Your task to perform on an android device: Go to sound settings Image 0: 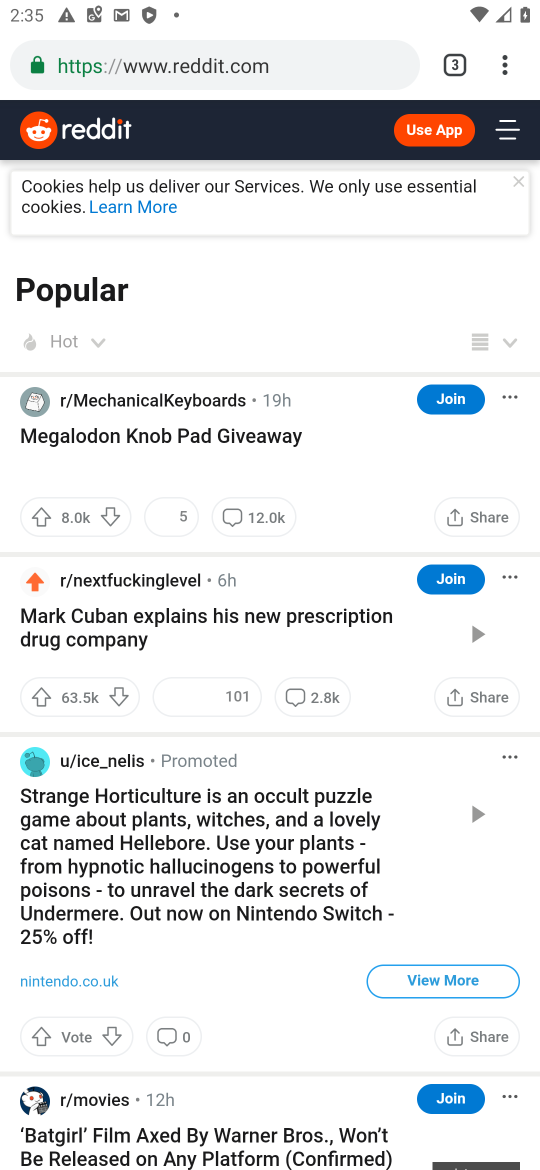
Step 0: press home button
Your task to perform on an android device: Go to sound settings Image 1: 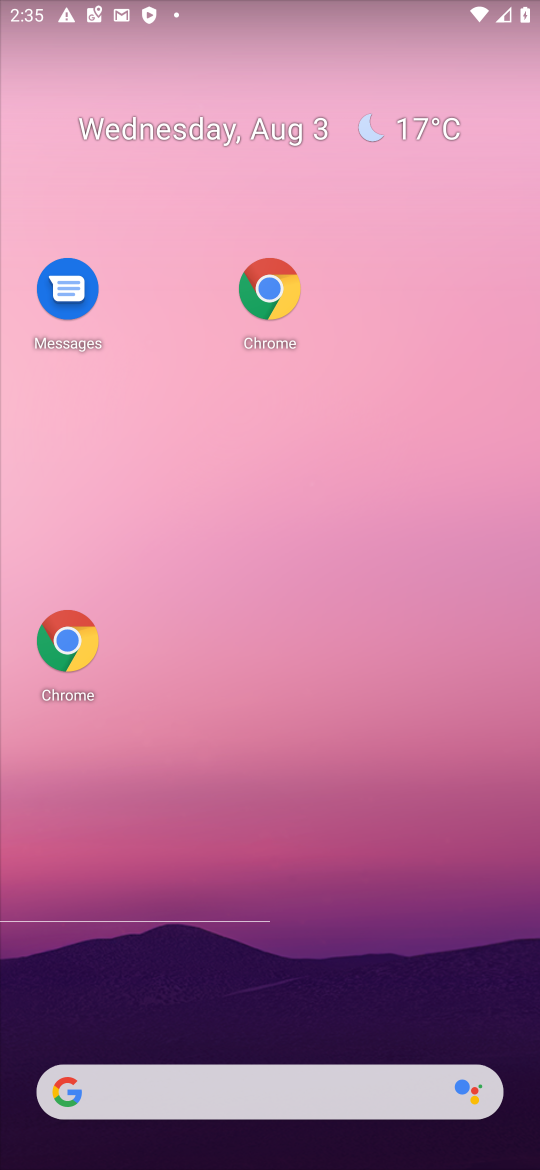
Step 1: click (54, 656)
Your task to perform on an android device: Go to sound settings Image 2: 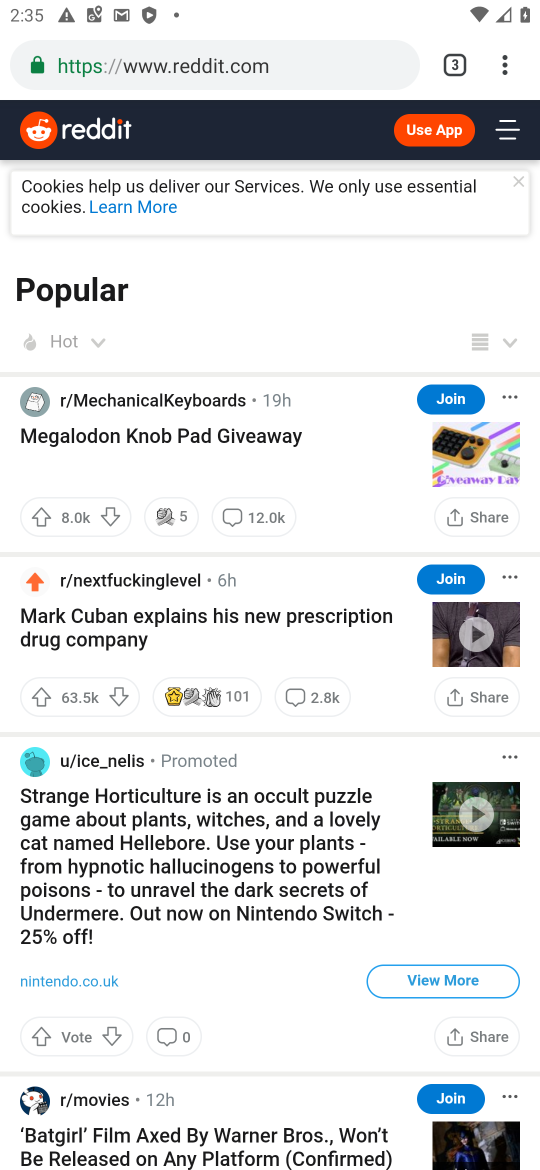
Step 2: click (283, 56)
Your task to perform on an android device: Go to sound settings Image 3: 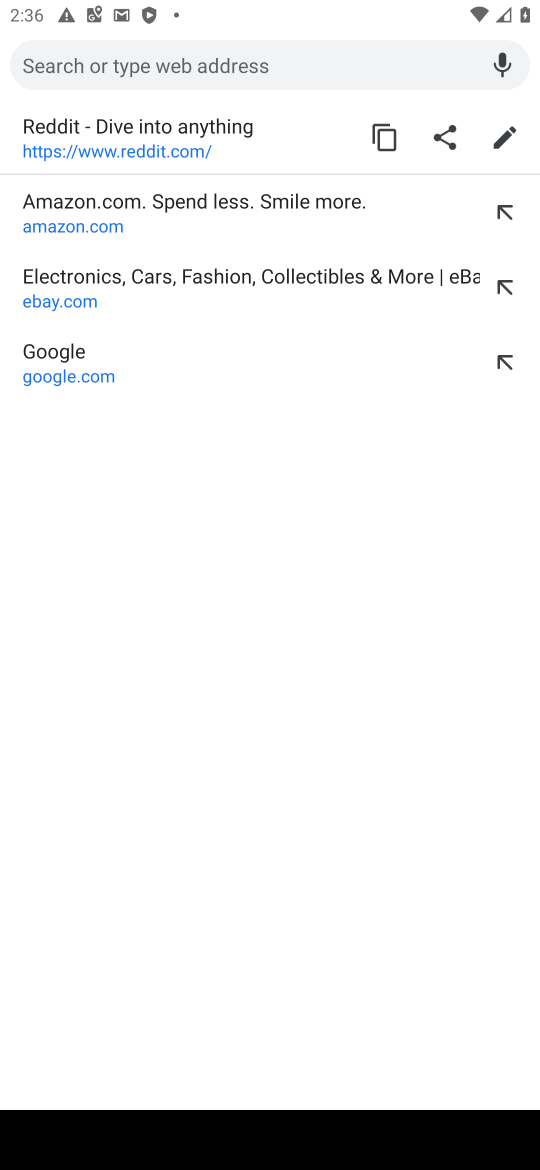
Step 3: press home button
Your task to perform on an android device: Go to sound settings Image 4: 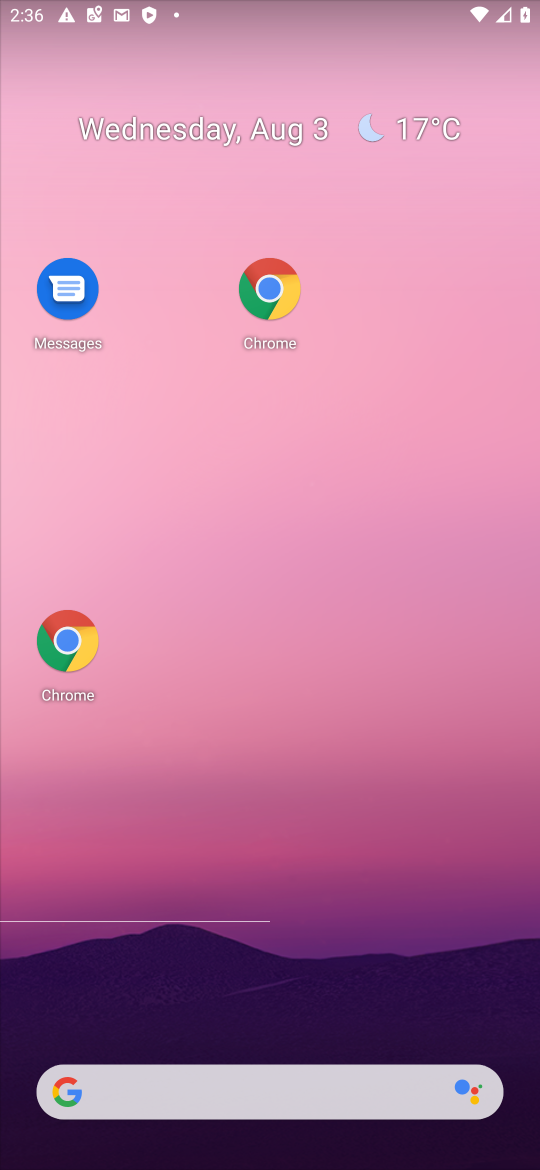
Step 4: drag from (339, 985) to (387, 111)
Your task to perform on an android device: Go to sound settings Image 5: 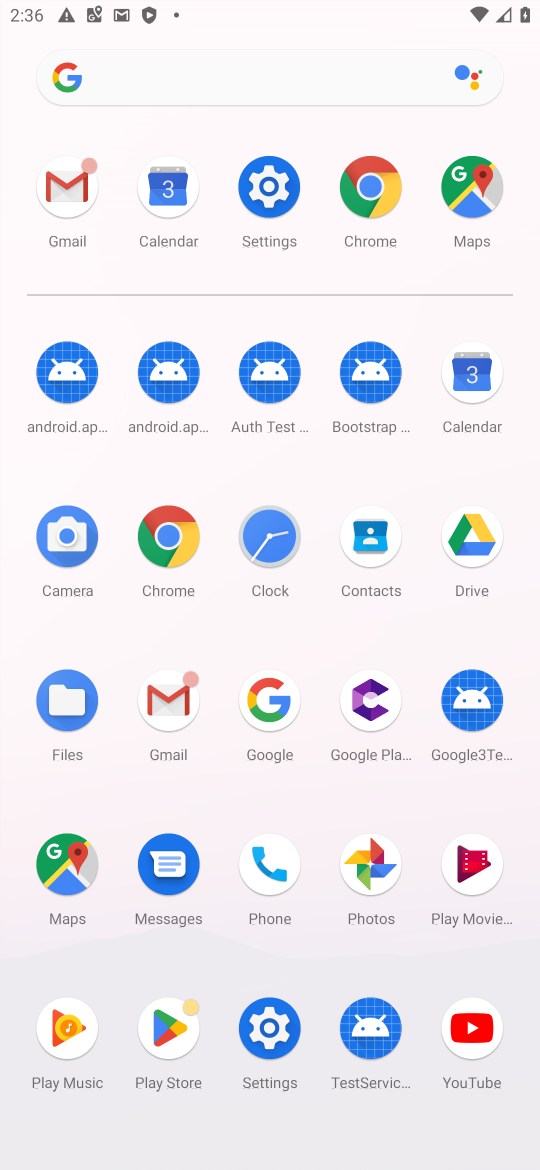
Step 5: click (296, 190)
Your task to perform on an android device: Go to sound settings Image 6: 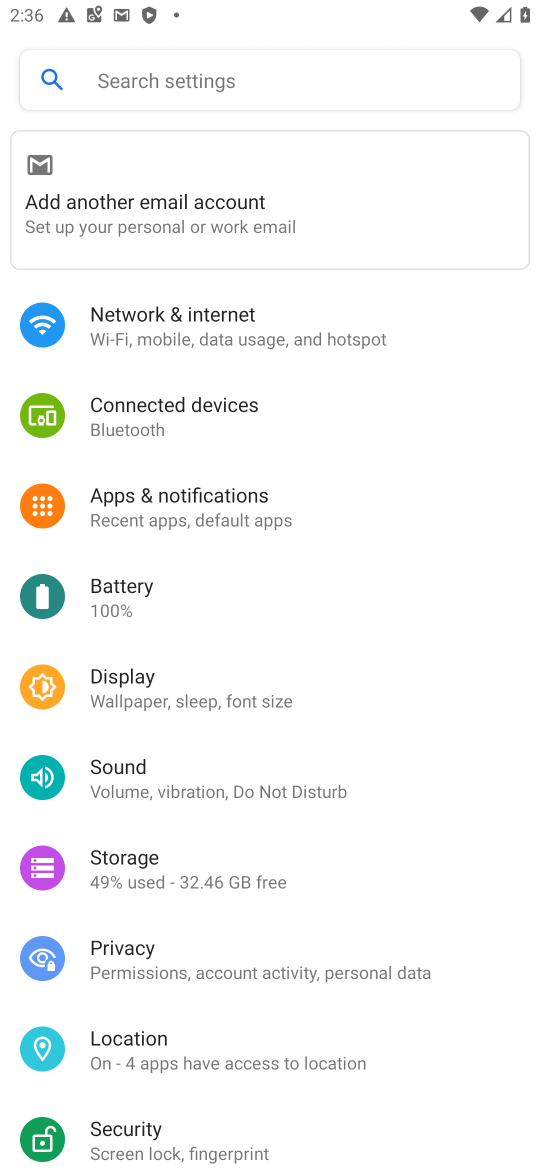
Step 6: click (241, 798)
Your task to perform on an android device: Go to sound settings Image 7: 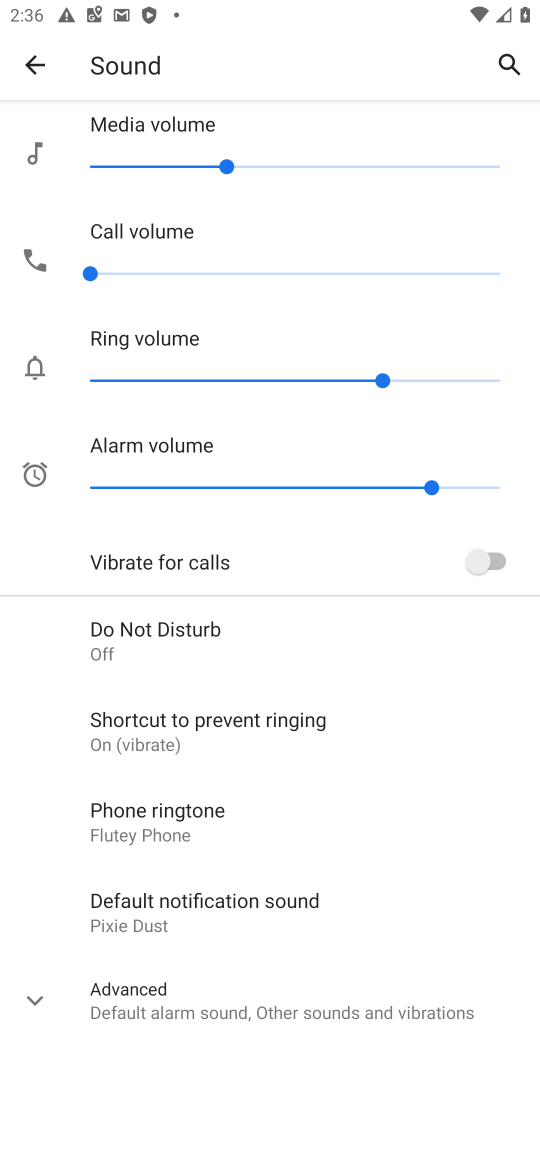
Step 7: task complete